Your task to perform on an android device: Open the calendar and show me this week's events Image 0: 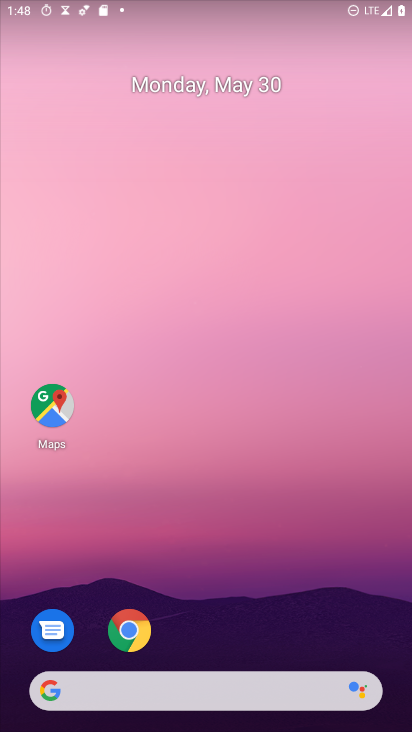
Step 0: drag from (277, 669) to (352, 159)
Your task to perform on an android device: Open the calendar and show me this week's events Image 1: 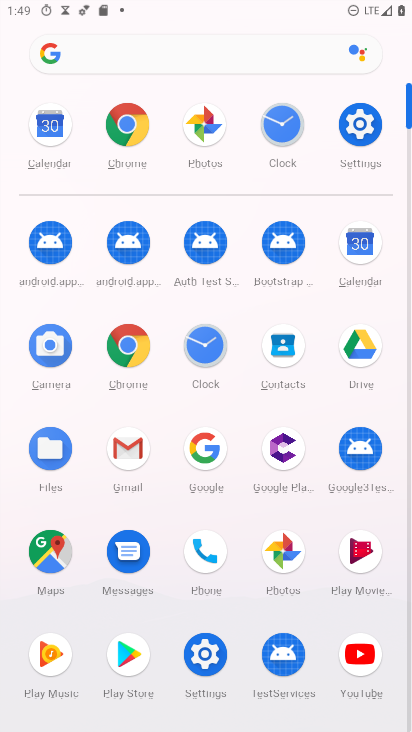
Step 1: click (347, 262)
Your task to perform on an android device: Open the calendar and show me this week's events Image 2: 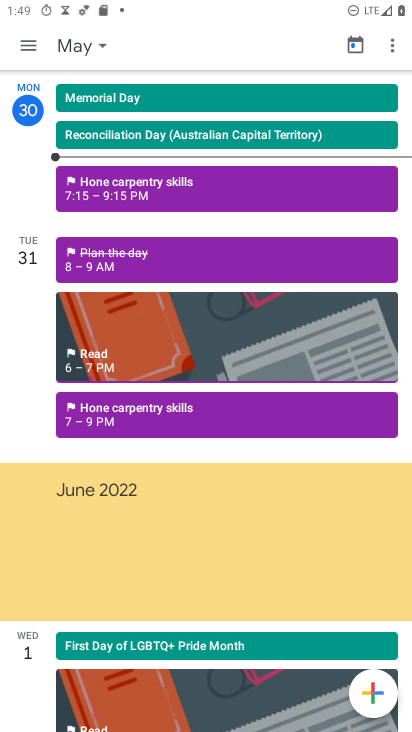
Step 2: click (46, 61)
Your task to perform on an android device: Open the calendar and show me this week's events Image 3: 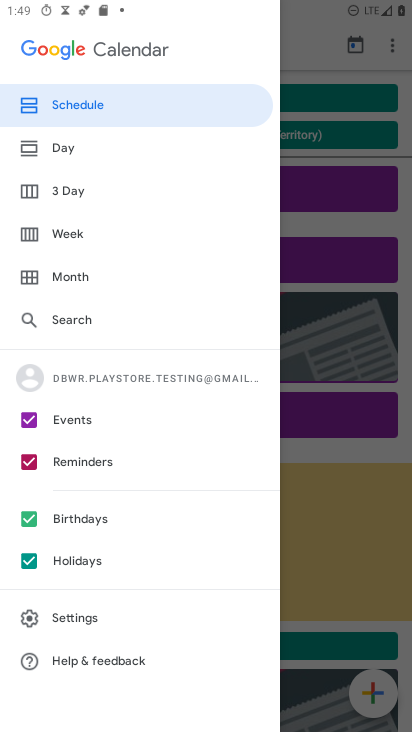
Step 3: click (82, 228)
Your task to perform on an android device: Open the calendar and show me this week's events Image 4: 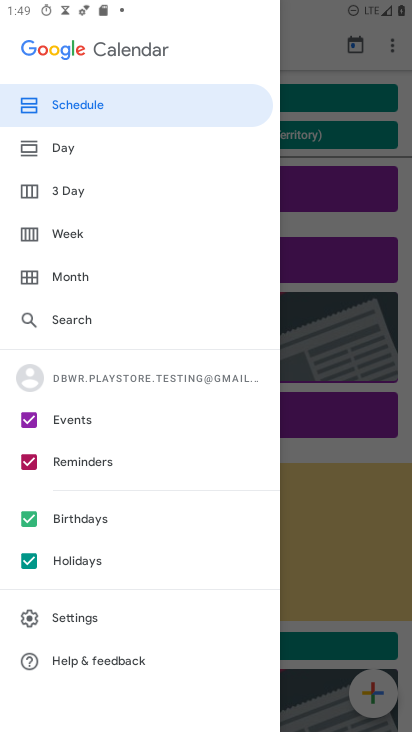
Step 4: click (82, 228)
Your task to perform on an android device: Open the calendar and show me this week's events Image 5: 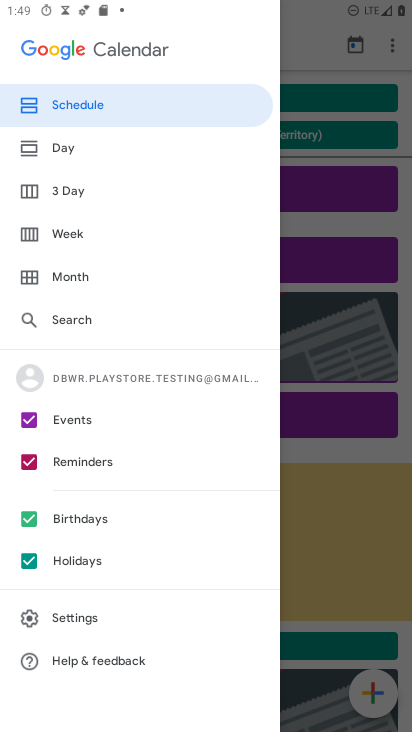
Step 5: click (78, 240)
Your task to perform on an android device: Open the calendar and show me this week's events Image 6: 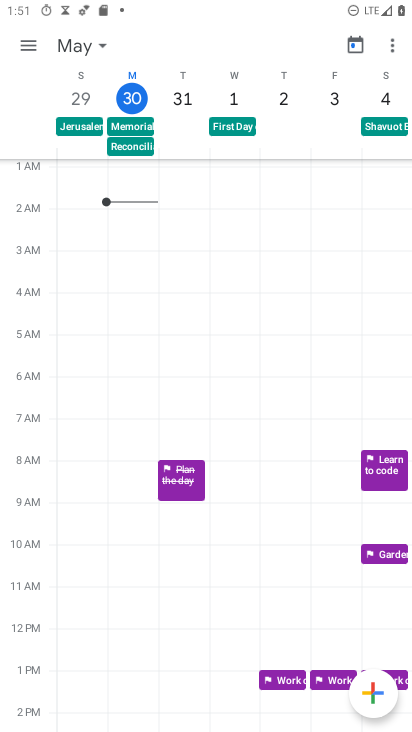
Step 6: task complete